Your task to perform on an android device: View the shopping cart on target. Add "usb-c to usb-a" to the cart on target Image 0: 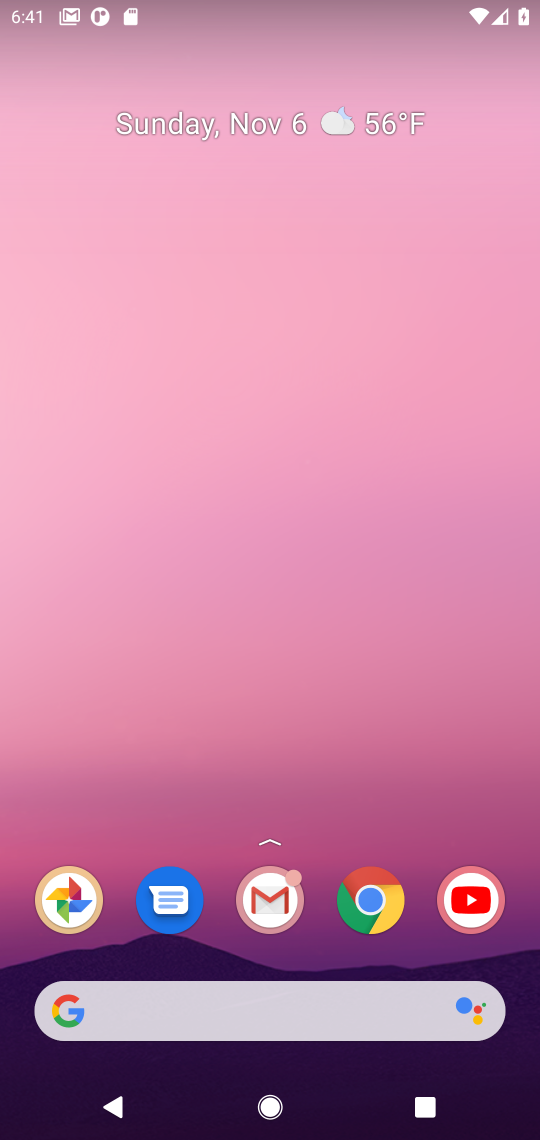
Step 0: drag from (310, 957) to (305, 302)
Your task to perform on an android device: View the shopping cart on target. Add "usb-c to usb-a" to the cart on target Image 1: 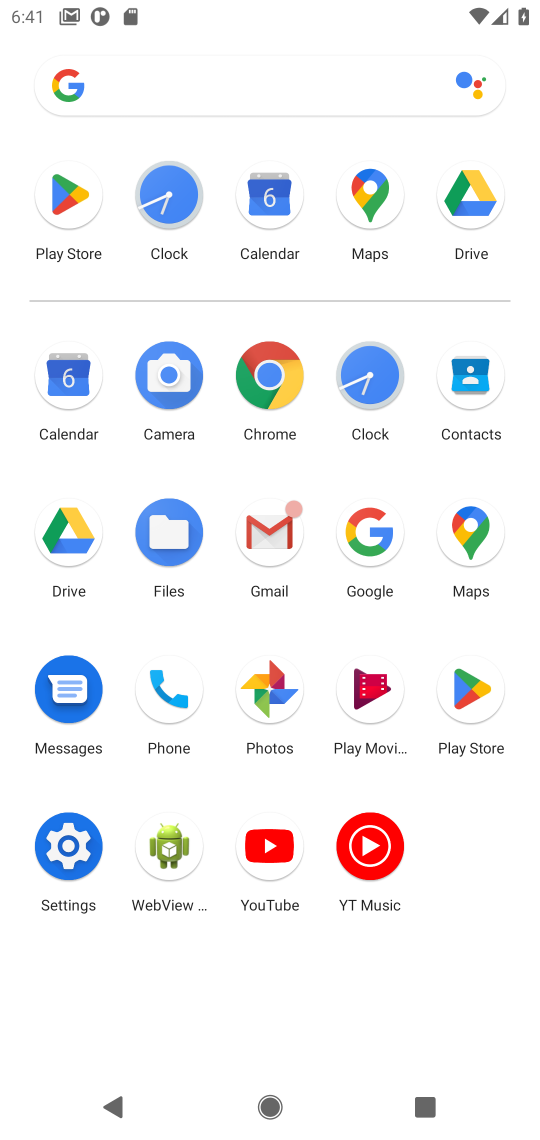
Step 1: click (272, 379)
Your task to perform on an android device: View the shopping cart on target. Add "usb-c to usb-a" to the cart on target Image 2: 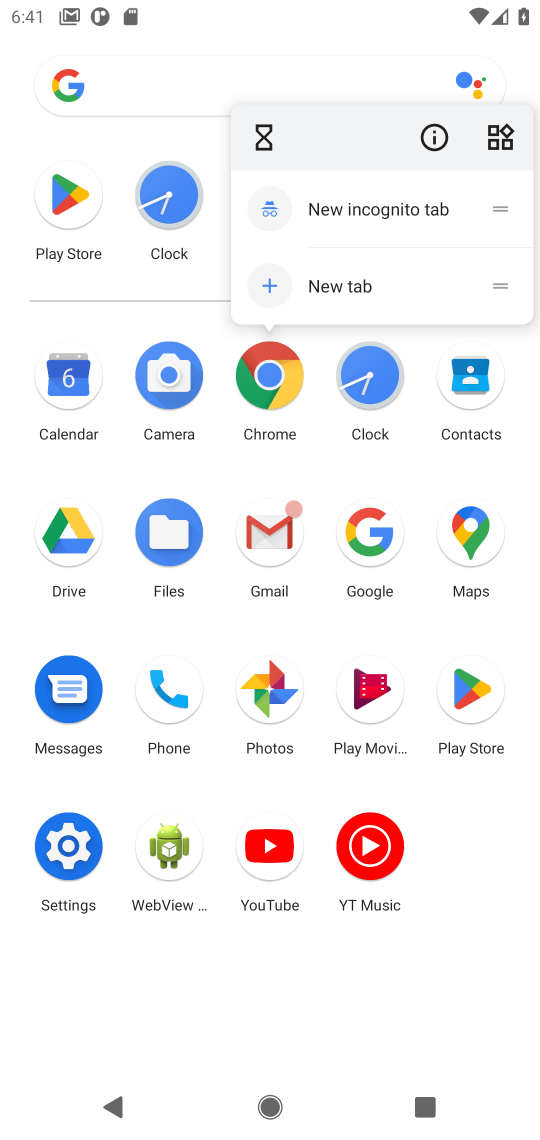
Step 2: click (272, 379)
Your task to perform on an android device: View the shopping cart on target. Add "usb-c to usb-a" to the cart on target Image 3: 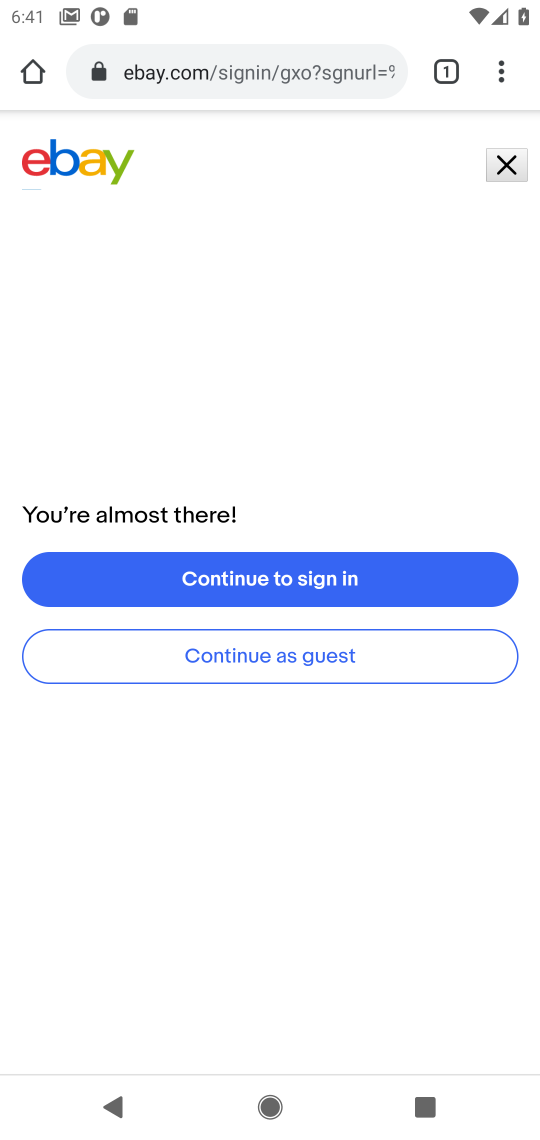
Step 3: click (261, 77)
Your task to perform on an android device: View the shopping cart on target. Add "usb-c to usb-a" to the cart on target Image 4: 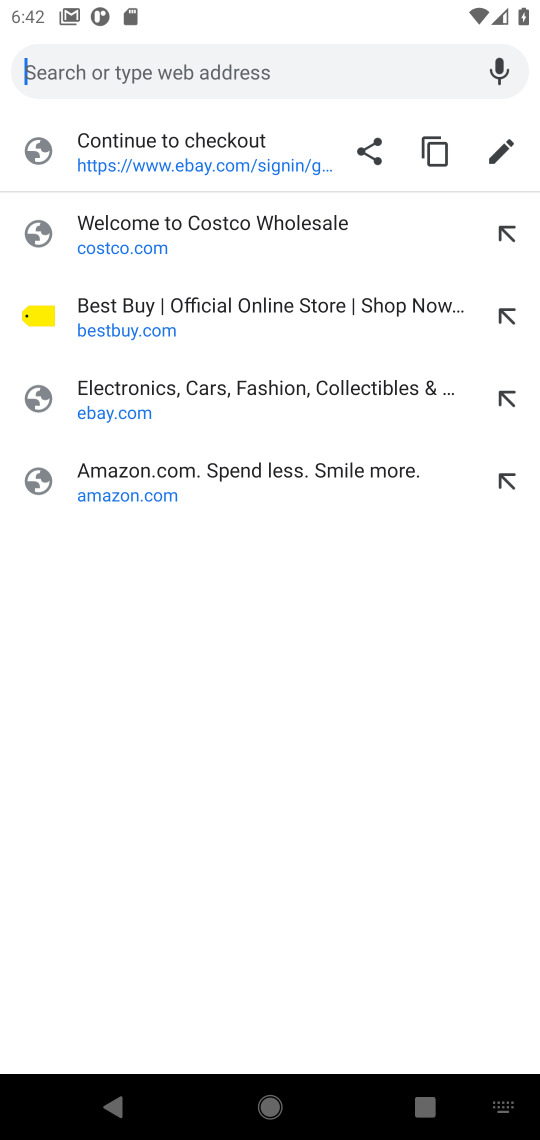
Step 4: type "target.com"
Your task to perform on an android device: View the shopping cart on target. Add "usb-c to usb-a" to the cart on target Image 5: 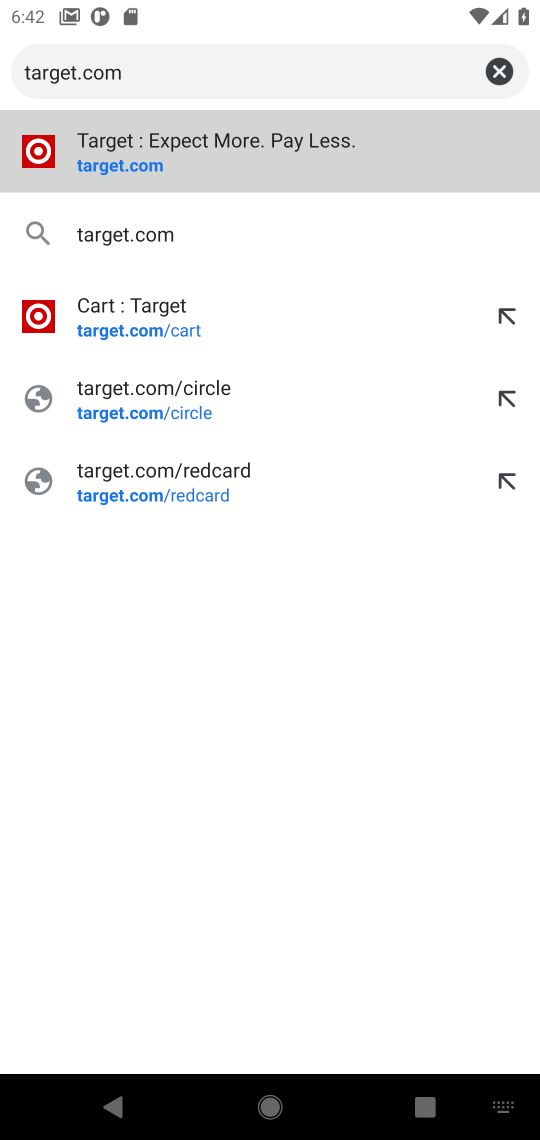
Step 5: press enter
Your task to perform on an android device: View the shopping cart on target. Add "usb-c to usb-a" to the cart on target Image 6: 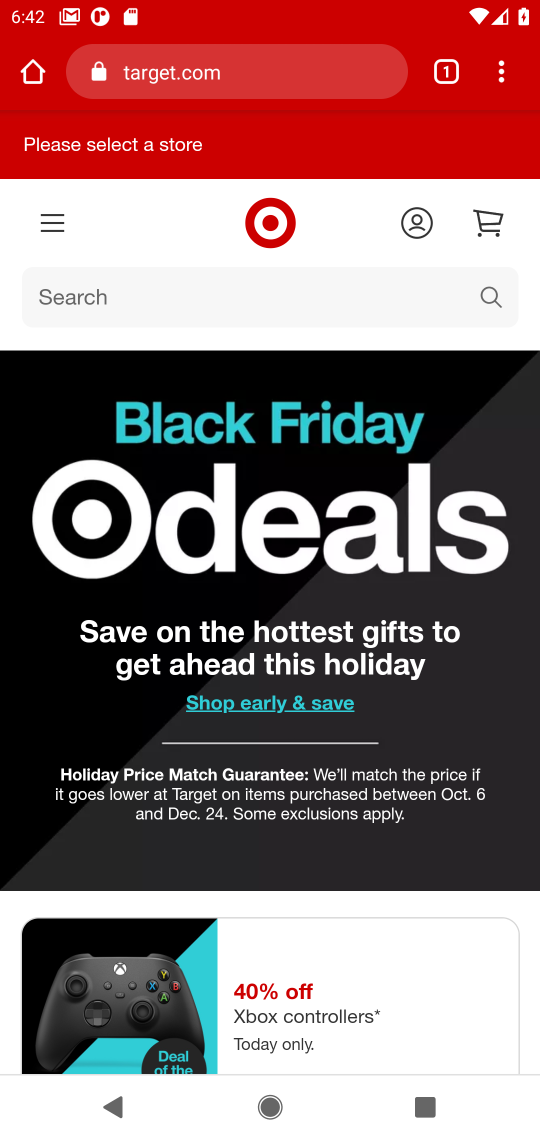
Step 6: click (492, 212)
Your task to perform on an android device: View the shopping cart on target. Add "usb-c to usb-a" to the cart on target Image 7: 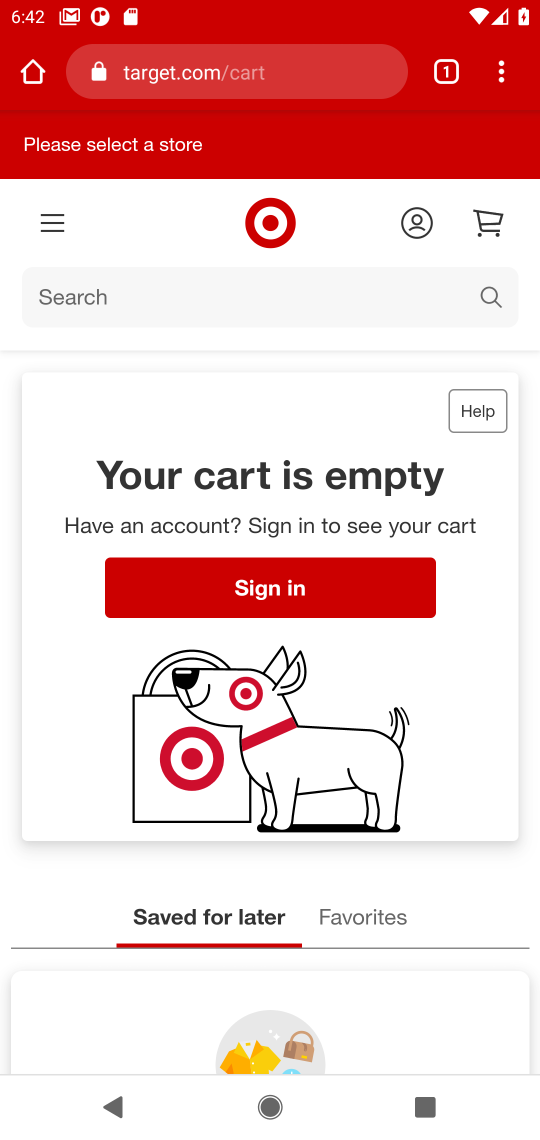
Step 7: click (310, 309)
Your task to perform on an android device: View the shopping cart on target. Add "usb-c to usb-a" to the cart on target Image 8: 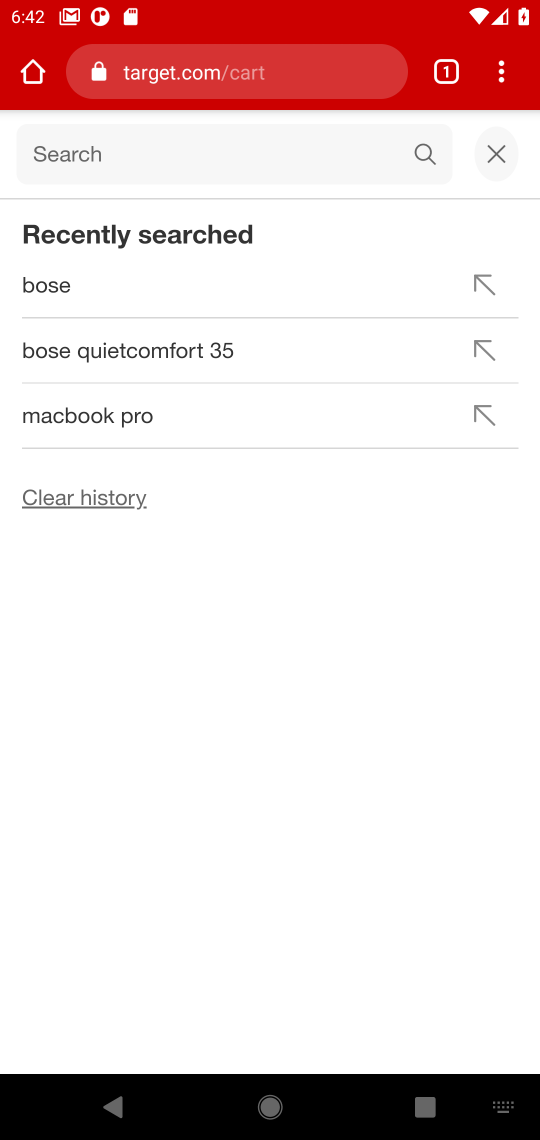
Step 8: type "usb-c to usb-a"
Your task to perform on an android device: View the shopping cart on target. Add "usb-c to usb-a" to the cart on target Image 9: 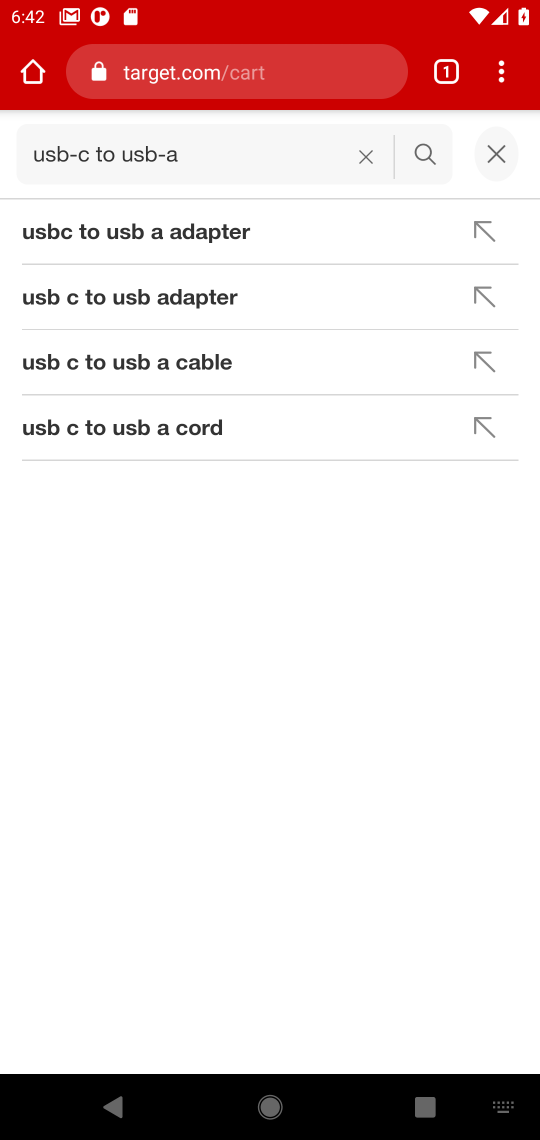
Step 9: press enter
Your task to perform on an android device: View the shopping cart on target. Add "usb-c to usb-a" to the cart on target Image 10: 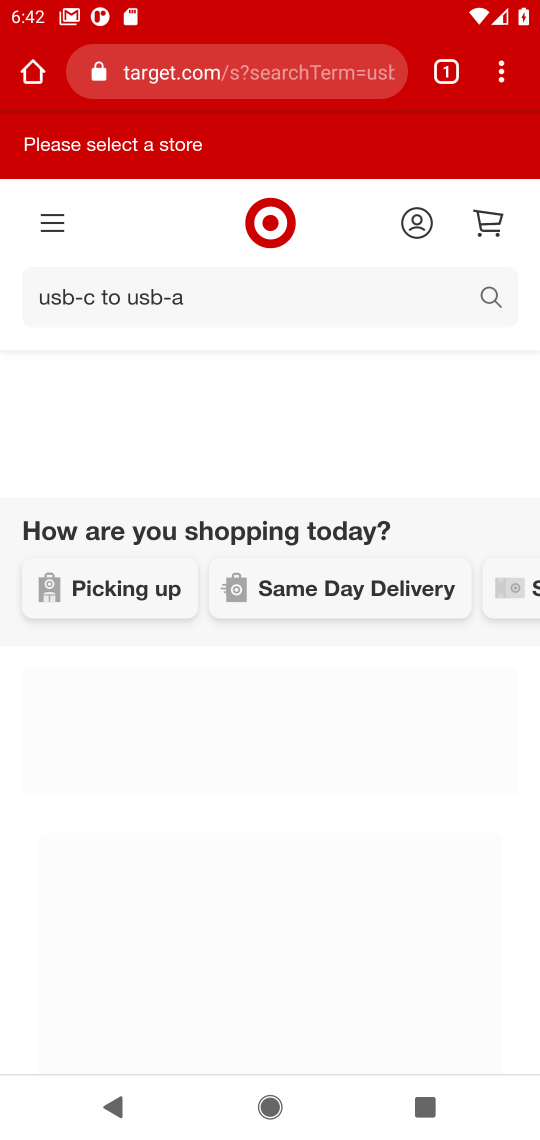
Step 10: drag from (410, 847) to (376, 376)
Your task to perform on an android device: View the shopping cart on target. Add "usb-c to usb-a" to the cart on target Image 11: 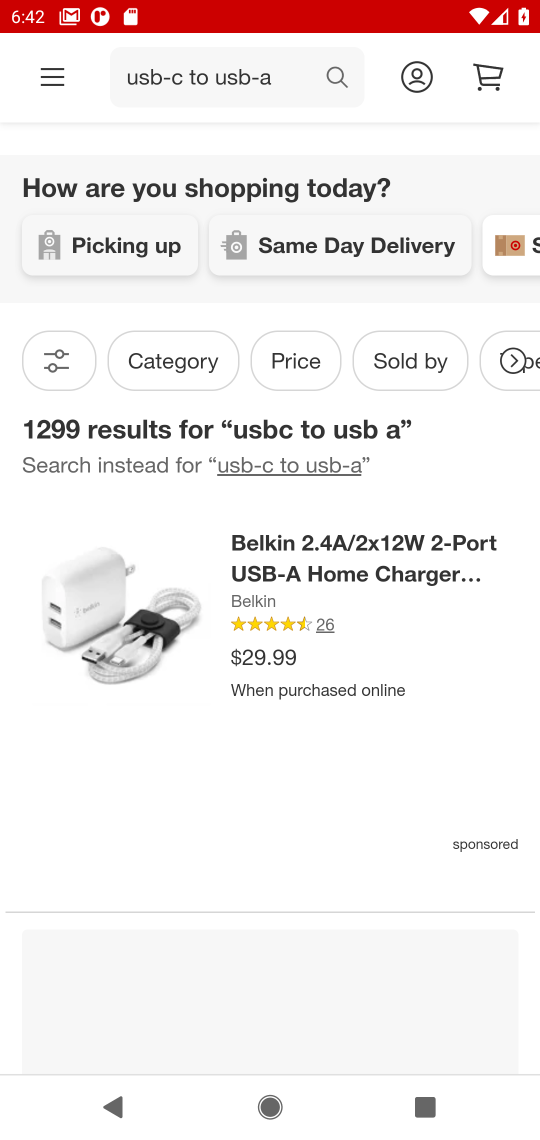
Step 11: drag from (436, 793) to (364, 468)
Your task to perform on an android device: View the shopping cart on target. Add "usb-c to usb-a" to the cart on target Image 12: 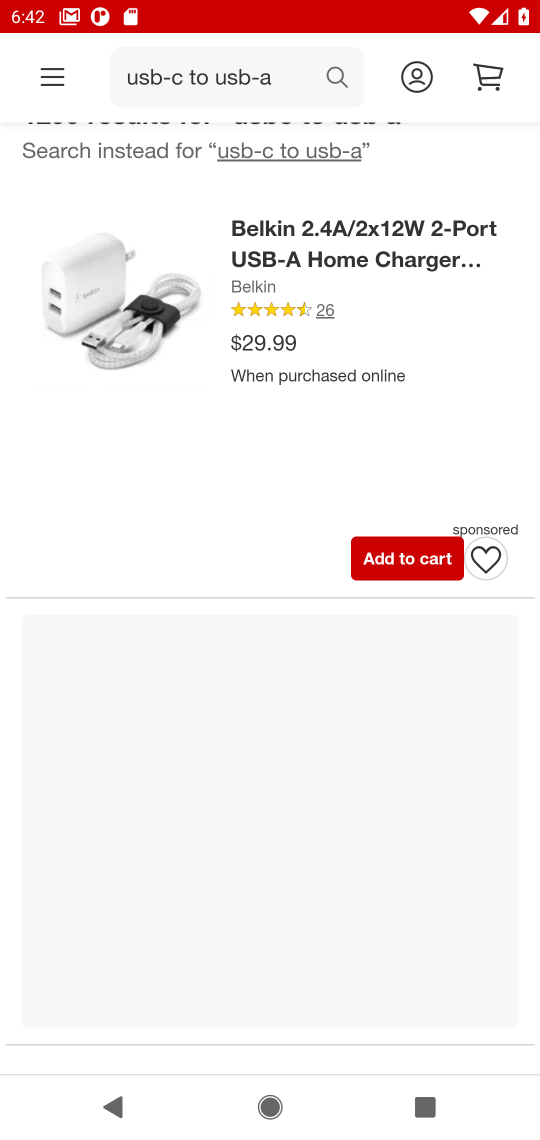
Step 12: drag from (147, 734) to (257, 372)
Your task to perform on an android device: View the shopping cart on target. Add "usb-c to usb-a" to the cart on target Image 13: 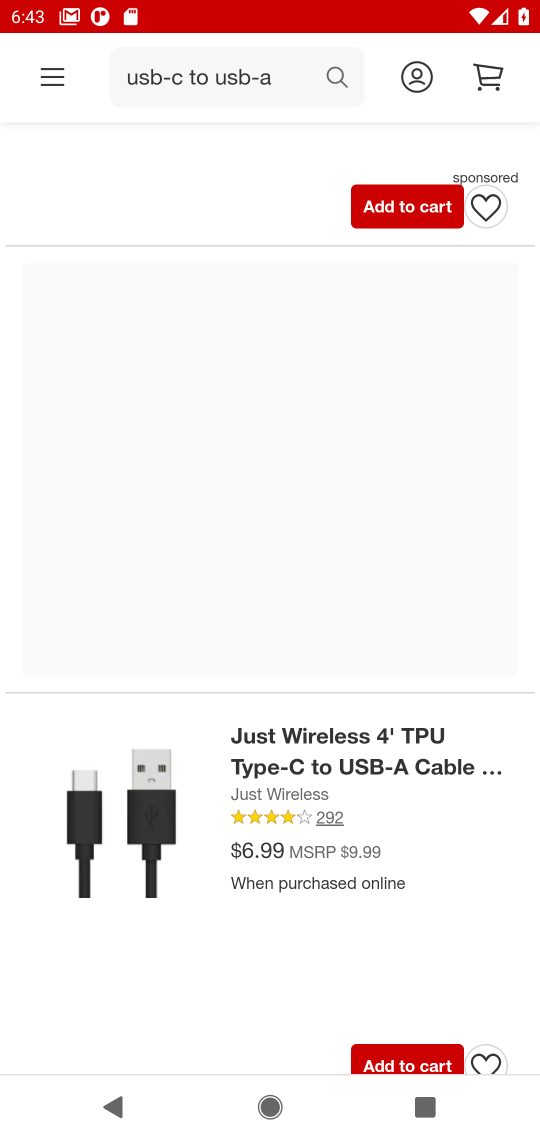
Step 13: drag from (233, 821) to (188, 685)
Your task to perform on an android device: View the shopping cart on target. Add "usb-c to usb-a" to the cart on target Image 14: 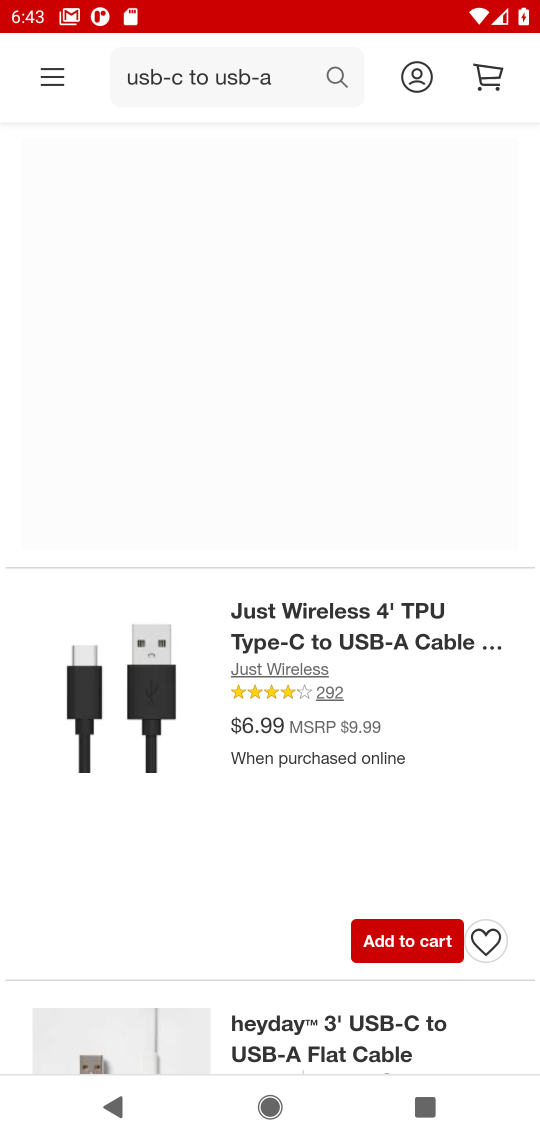
Step 14: click (393, 934)
Your task to perform on an android device: View the shopping cart on target. Add "usb-c to usb-a" to the cart on target Image 15: 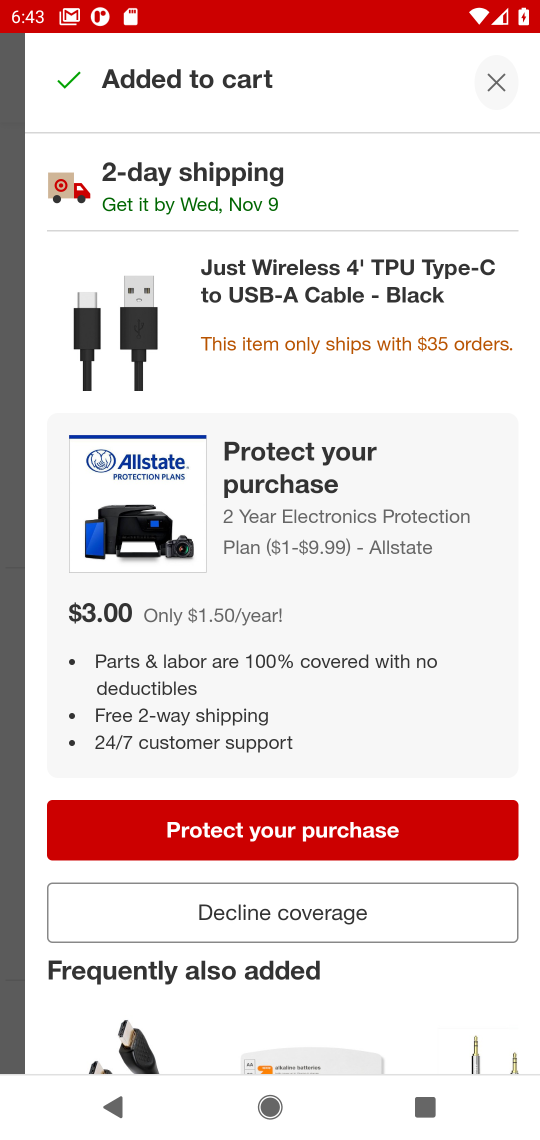
Step 15: click (493, 72)
Your task to perform on an android device: View the shopping cart on target. Add "usb-c to usb-a" to the cart on target Image 16: 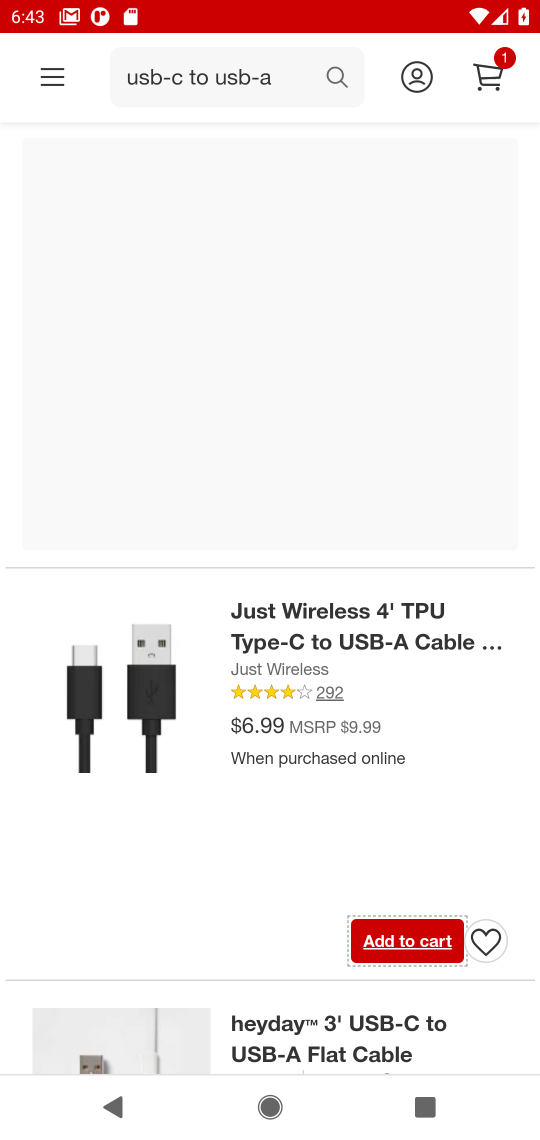
Step 16: click (483, 80)
Your task to perform on an android device: View the shopping cart on target. Add "usb-c to usb-a" to the cart on target Image 17: 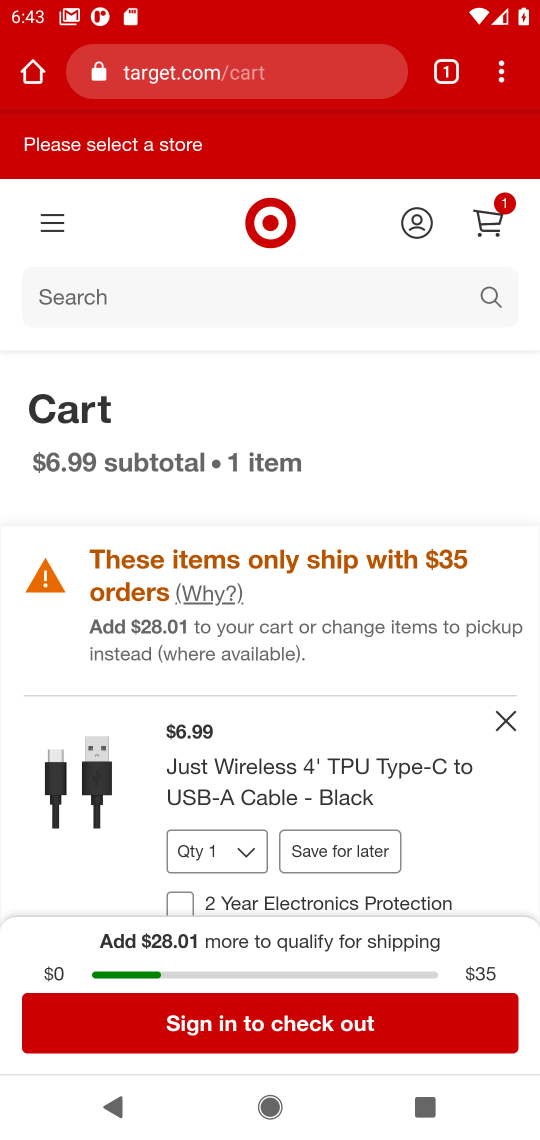
Step 17: task complete